Your task to perform on an android device: Open the calendar app, open the side menu, and click the "Day" option Image 0: 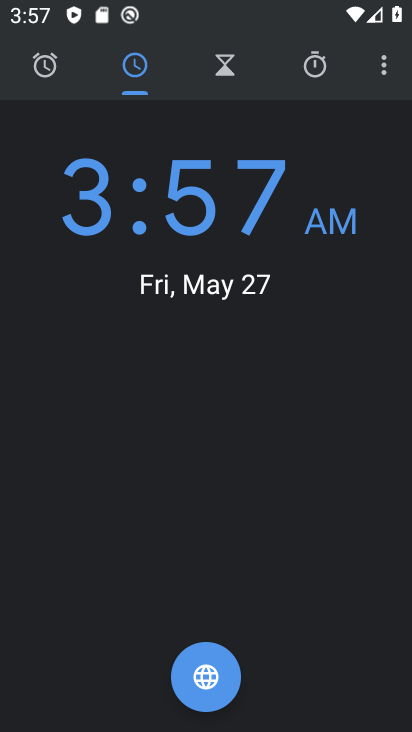
Step 0: press back button
Your task to perform on an android device: Open the calendar app, open the side menu, and click the "Day" option Image 1: 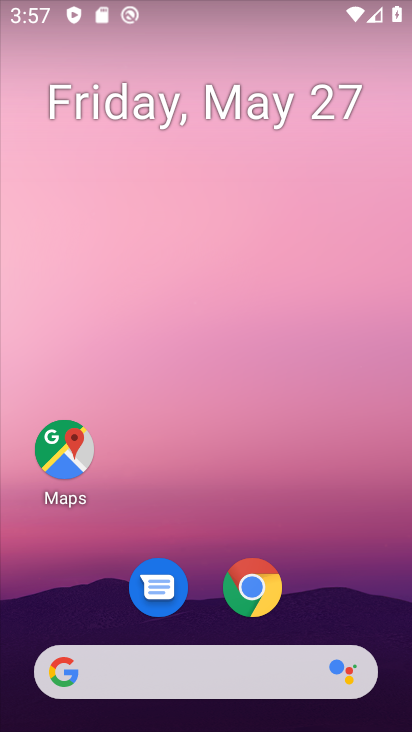
Step 1: drag from (342, 572) to (218, 6)
Your task to perform on an android device: Open the calendar app, open the side menu, and click the "Day" option Image 2: 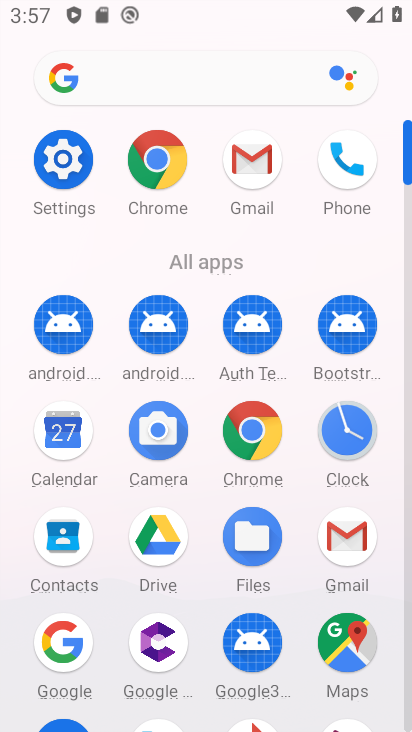
Step 2: drag from (9, 544) to (13, 227)
Your task to perform on an android device: Open the calendar app, open the side menu, and click the "Day" option Image 3: 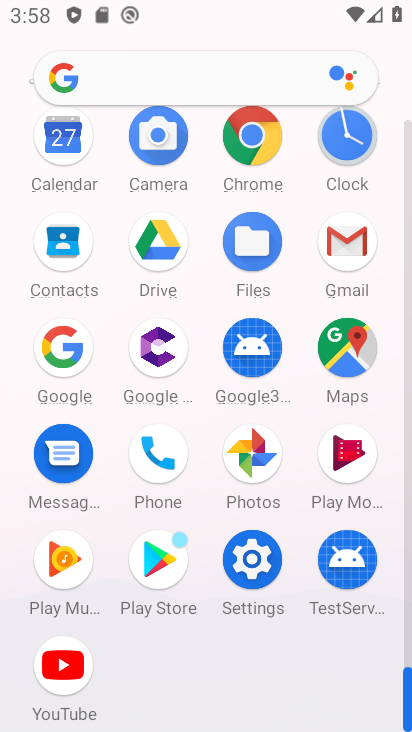
Step 3: click (65, 124)
Your task to perform on an android device: Open the calendar app, open the side menu, and click the "Day" option Image 4: 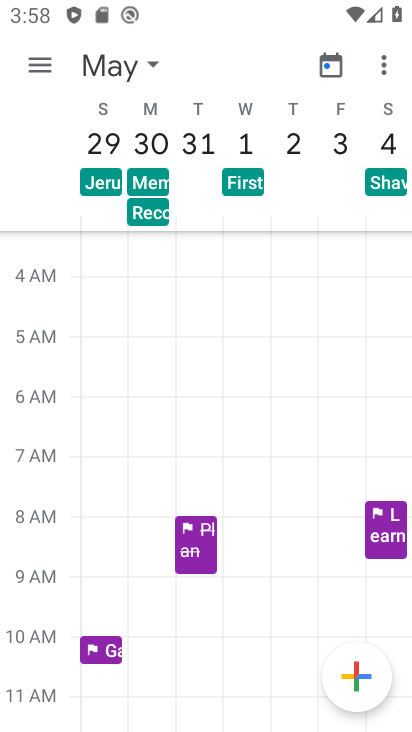
Step 4: click (40, 60)
Your task to perform on an android device: Open the calendar app, open the side menu, and click the "Day" option Image 5: 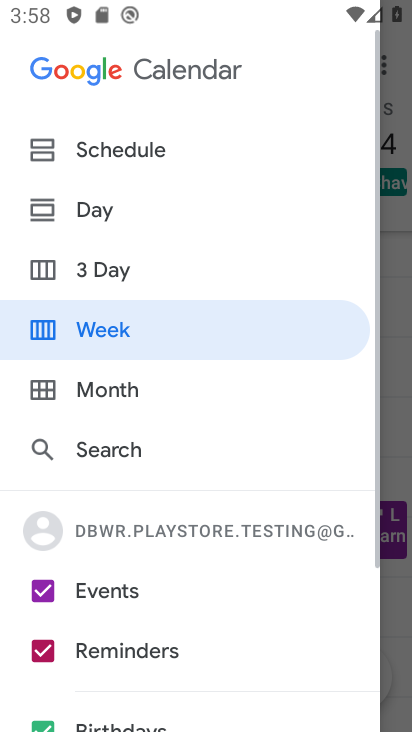
Step 5: click (90, 207)
Your task to perform on an android device: Open the calendar app, open the side menu, and click the "Day" option Image 6: 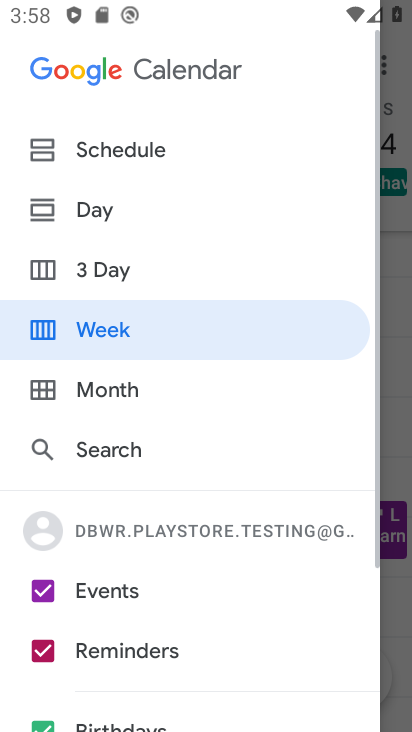
Step 6: click (90, 207)
Your task to perform on an android device: Open the calendar app, open the side menu, and click the "Day" option Image 7: 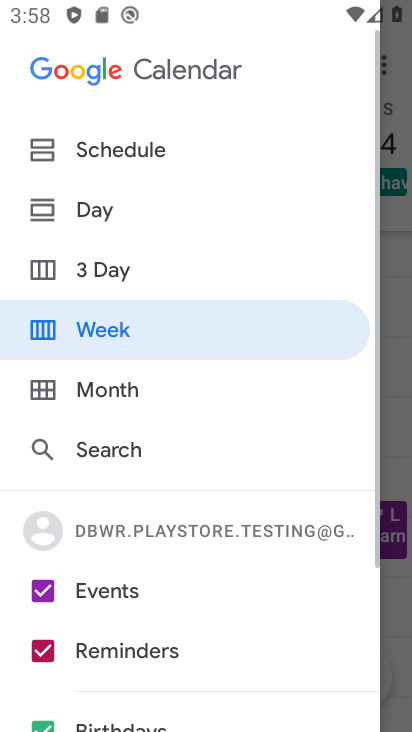
Step 7: click (90, 207)
Your task to perform on an android device: Open the calendar app, open the side menu, and click the "Day" option Image 8: 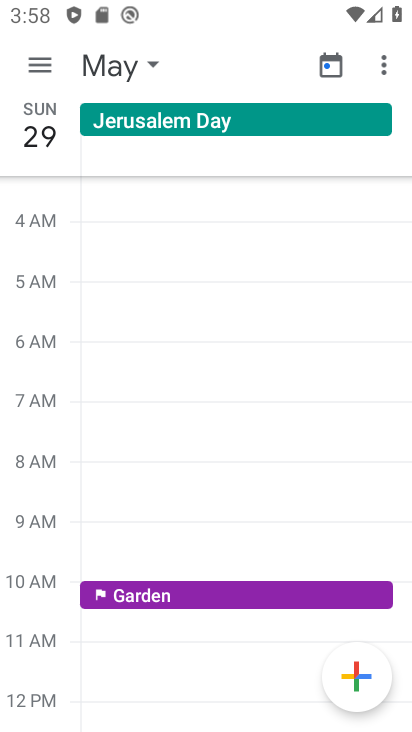
Step 8: task complete